Your task to perform on an android device: turn on notifications settings in the gmail app Image 0: 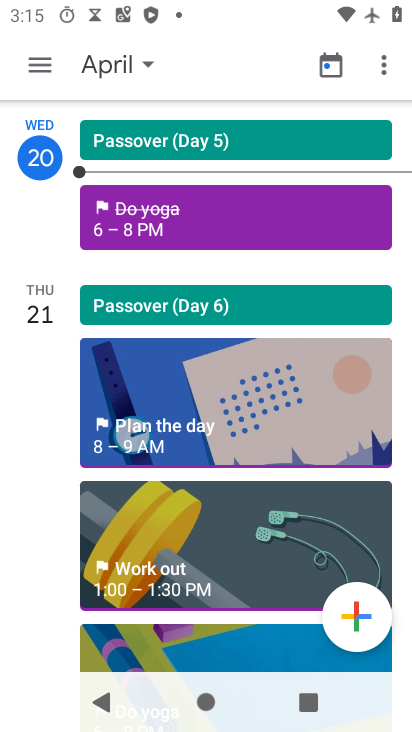
Step 0: press home button
Your task to perform on an android device: turn on notifications settings in the gmail app Image 1: 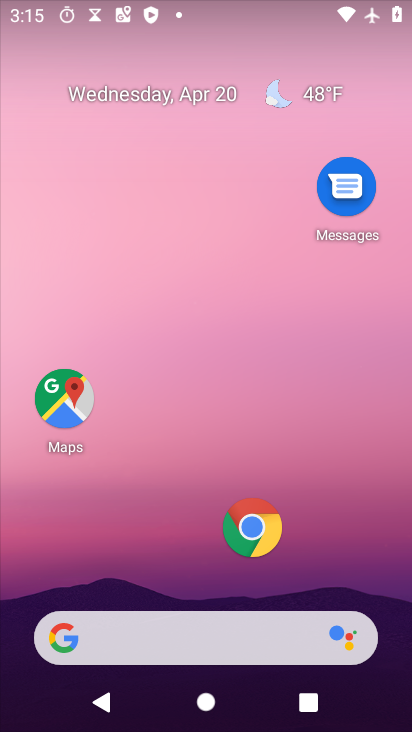
Step 1: drag from (179, 579) to (305, 151)
Your task to perform on an android device: turn on notifications settings in the gmail app Image 2: 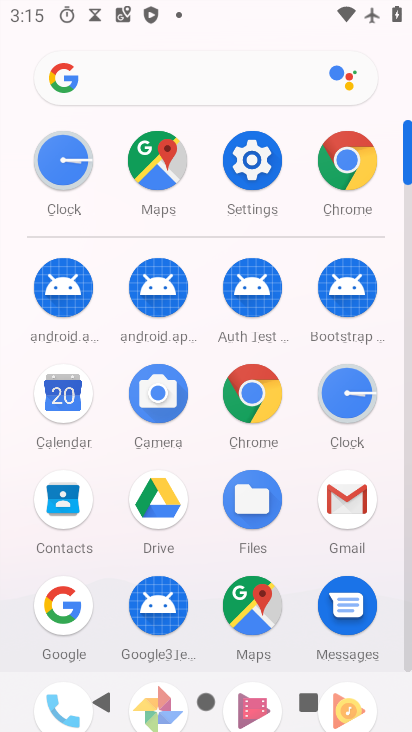
Step 2: click (349, 507)
Your task to perform on an android device: turn on notifications settings in the gmail app Image 3: 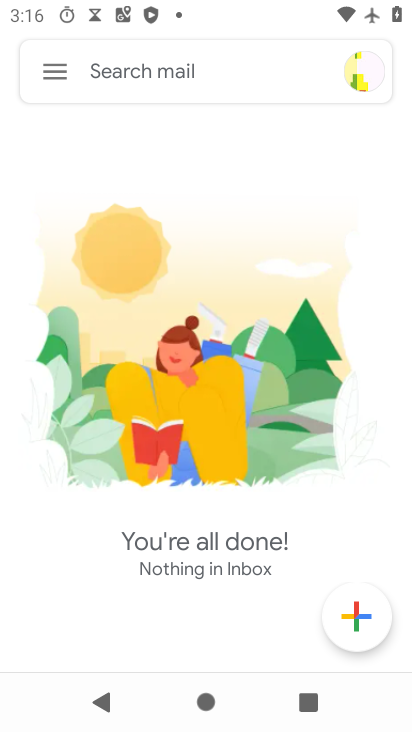
Step 3: click (54, 69)
Your task to perform on an android device: turn on notifications settings in the gmail app Image 4: 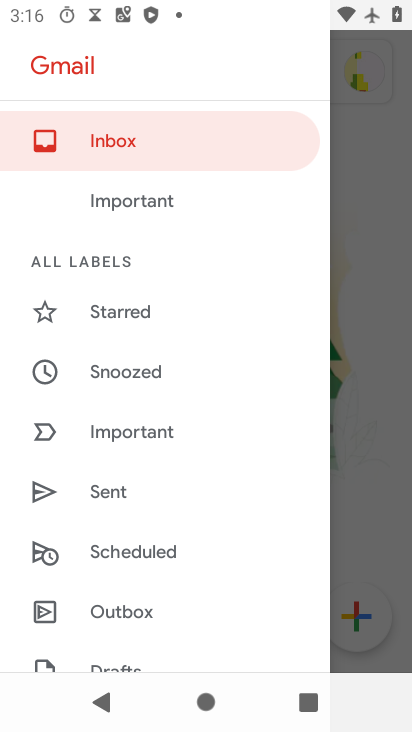
Step 4: drag from (180, 631) to (287, 173)
Your task to perform on an android device: turn on notifications settings in the gmail app Image 5: 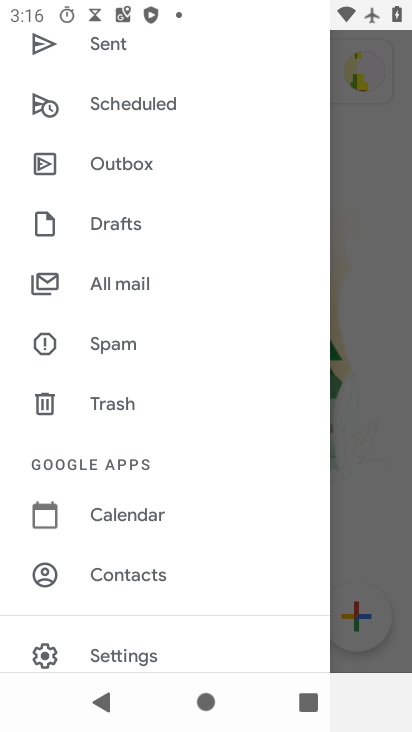
Step 5: drag from (194, 584) to (330, 271)
Your task to perform on an android device: turn on notifications settings in the gmail app Image 6: 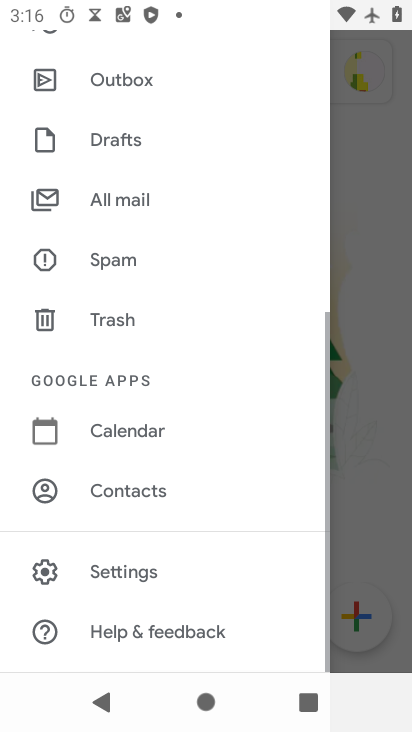
Step 6: click (141, 572)
Your task to perform on an android device: turn on notifications settings in the gmail app Image 7: 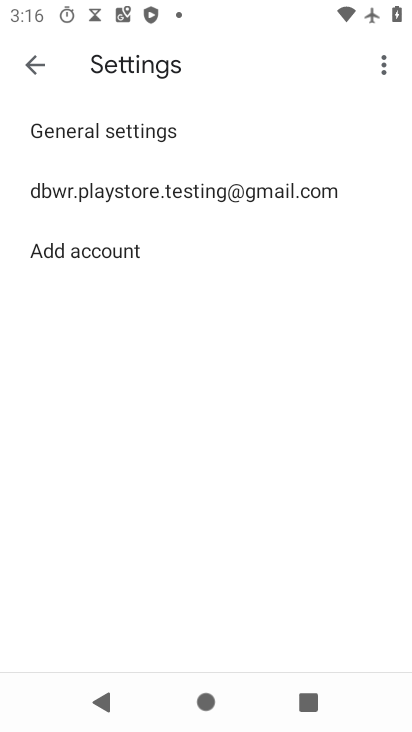
Step 7: click (213, 183)
Your task to perform on an android device: turn on notifications settings in the gmail app Image 8: 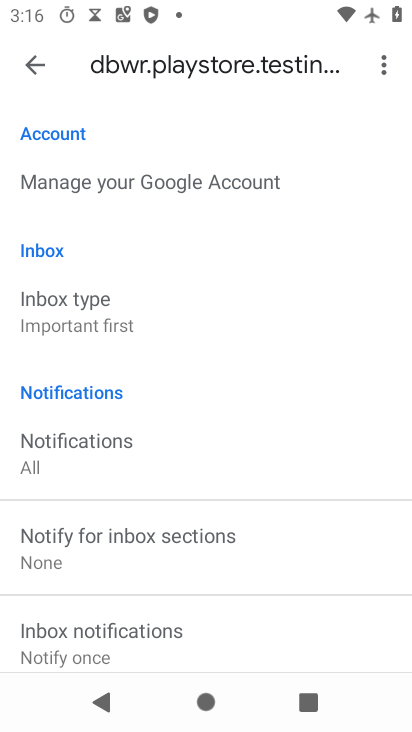
Step 8: click (88, 443)
Your task to perform on an android device: turn on notifications settings in the gmail app Image 9: 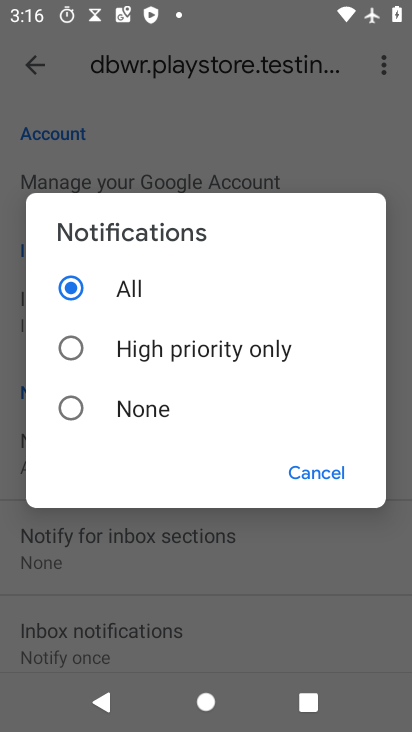
Step 9: task complete